Your task to perform on an android device: Go to eBay Image 0: 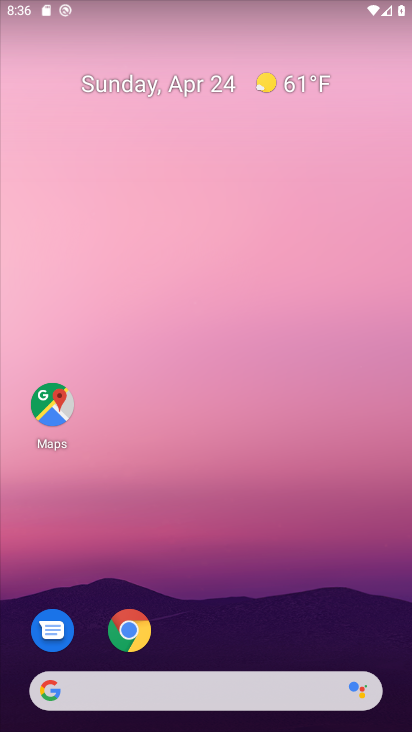
Step 0: drag from (329, 627) to (397, 102)
Your task to perform on an android device: Go to eBay Image 1: 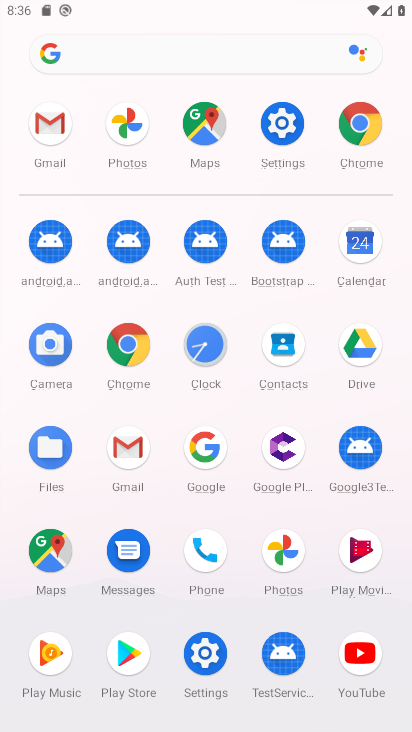
Step 1: click (365, 127)
Your task to perform on an android device: Go to eBay Image 2: 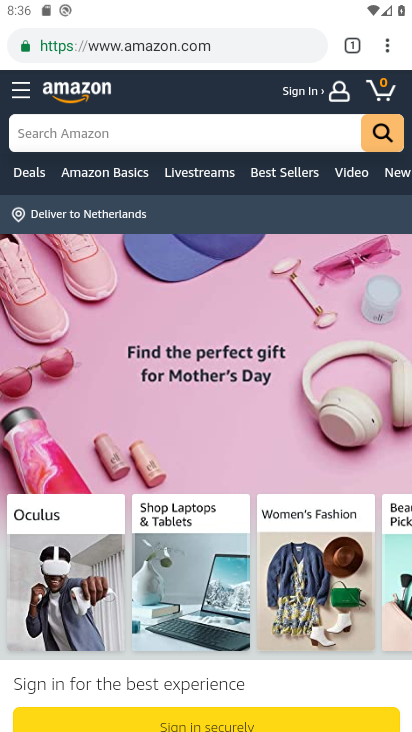
Step 2: press back button
Your task to perform on an android device: Go to eBay Image 3: 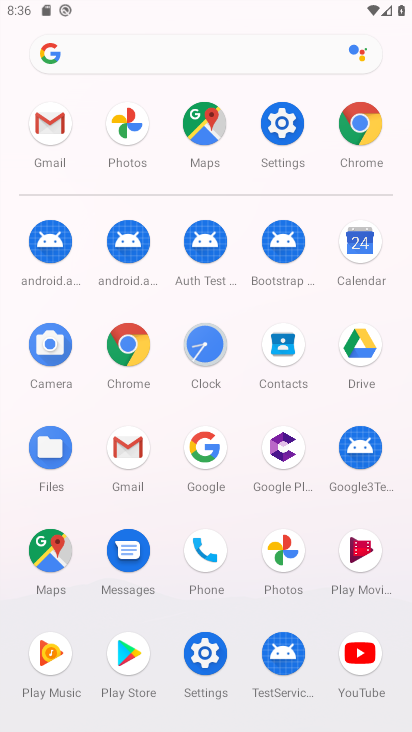
Step 3: click (369, 123)
Your task to perform on an android device: Go to eBay Image 4: 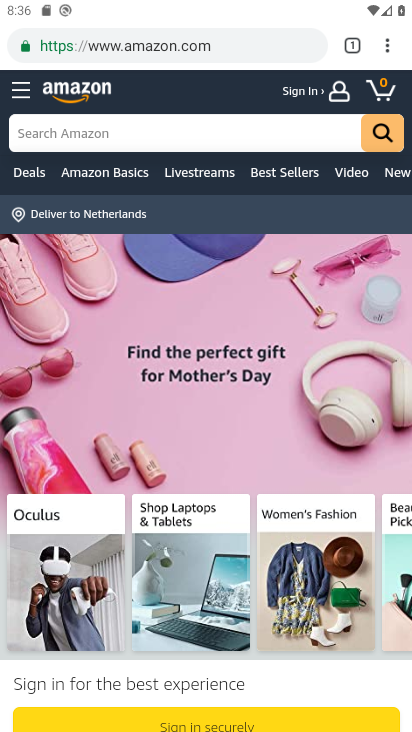
Step 4: click (219, 42)
Your task to perform on an android device: Go to eBay Image 5: 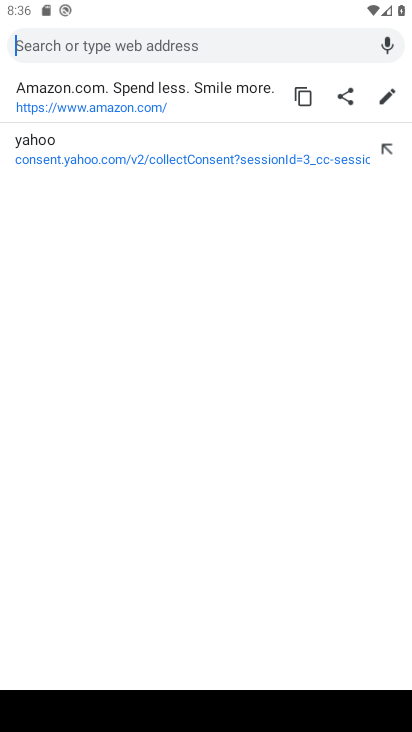
Step 5: type "ebay "
Your task to perform on an android device: Go to eBay Image 6: 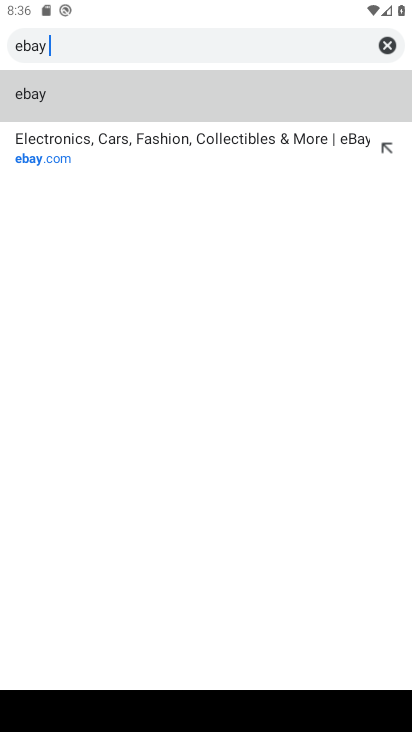
Step 6: click (189, 141)
Your task to perform on an android device: Go to eBay Image 7: 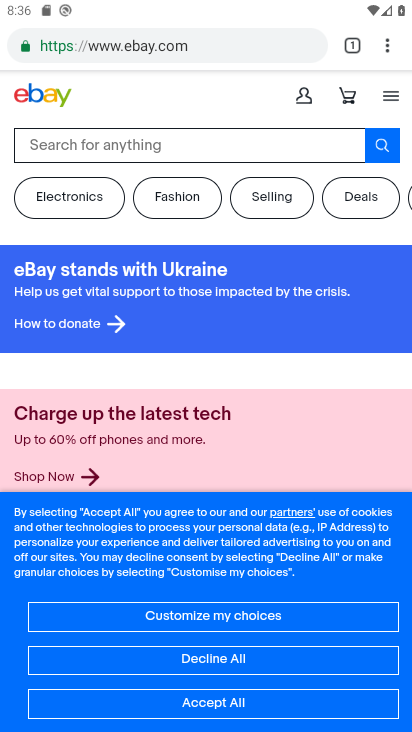
Step 7: task complete